Your task to perform on an android device: open the mobile data screen to see how much data has been used Image 0: 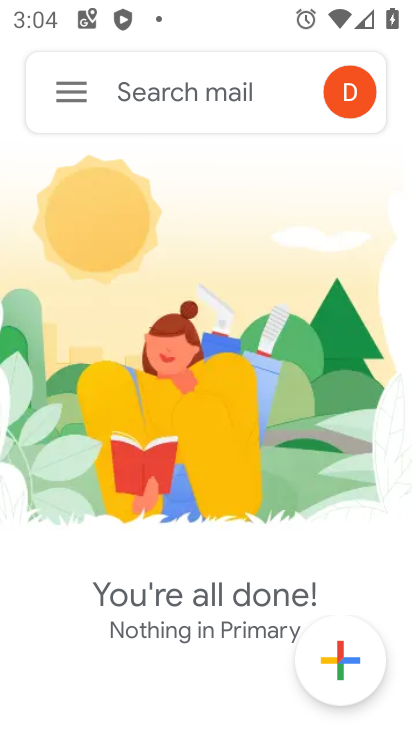
Step 0: press home button
Your task to perform on an android device: open the mobile data screen to see how much data has been used Image 1: 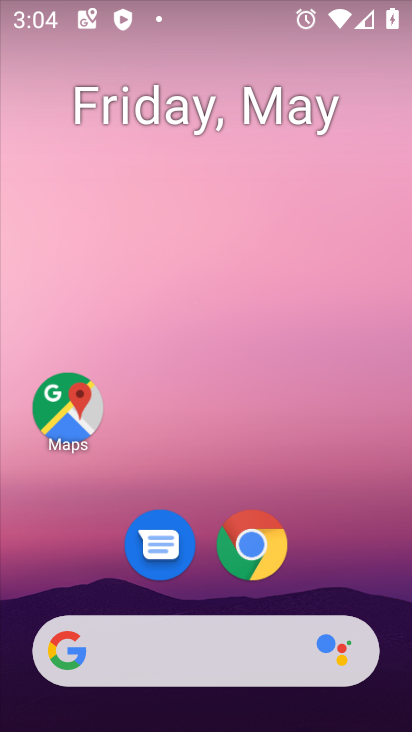
Step 1: drag from (345, 559) to (311, 124)
Your task to perform on an android device: open the mobile data screen to see how much data has been used Image 2: 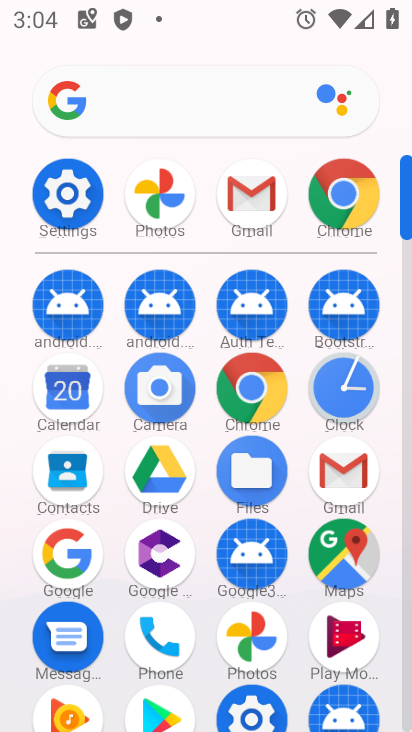
Step 2: click (69, 215)
Your task to perform on an android device: open the mobile data screen to see how much data has been used Image 3: 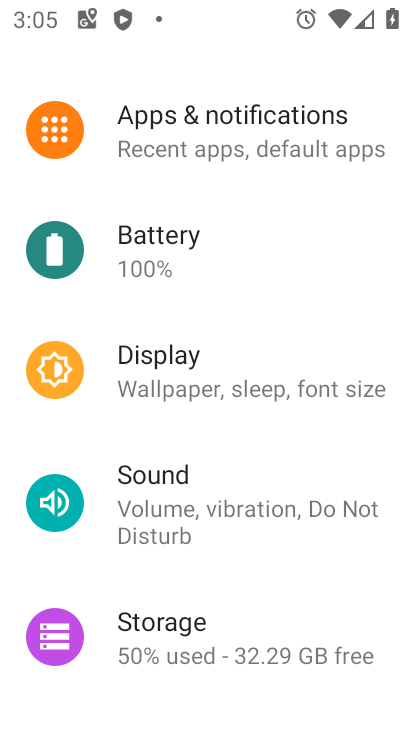
Step 3: drag from (296, 242) to (298, 623)
Your task to perform on an android device: open the mobile data screen to see how much data has been used Image 4: 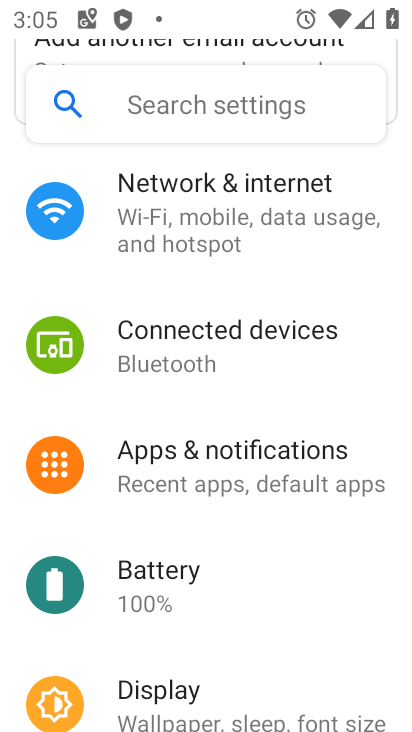
Step 4: drag from (312, 253) to (303, 463)
Your task to perform on an android device: open the mobile data screen to see how much data has been used Image 5: 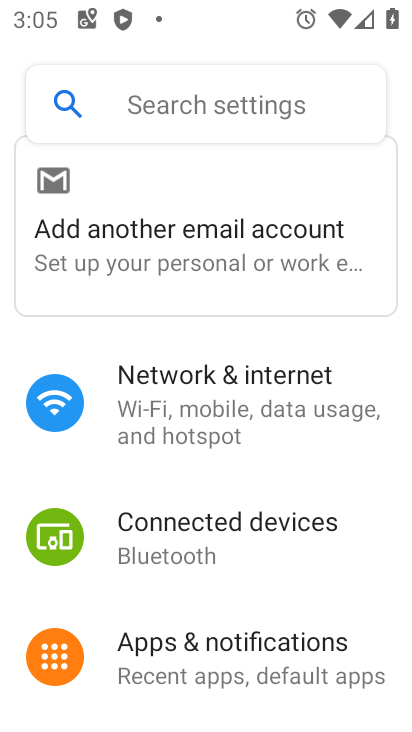
Step 5: click (275, 432)
Your task to perform on an android device: open the mobile data screen to see how much data has been used Image 6: 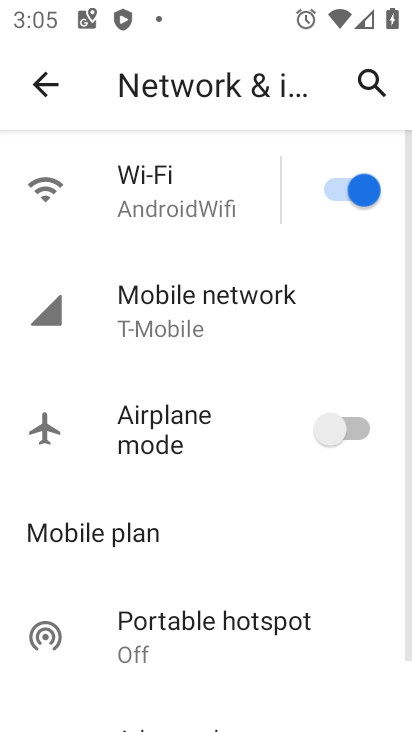
Step 6: click (196, 309)
Your task to perform on an android device: open the mobile data screen to see how much data has been used Image 7: 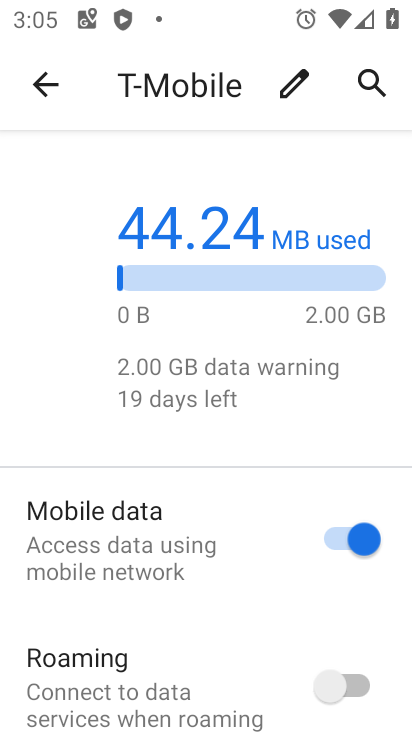
Step 7: drag from (241, 626) to (223, 244)
Your task to perform on an android device: open the mobile data screen to see how much data has been used Image 8: 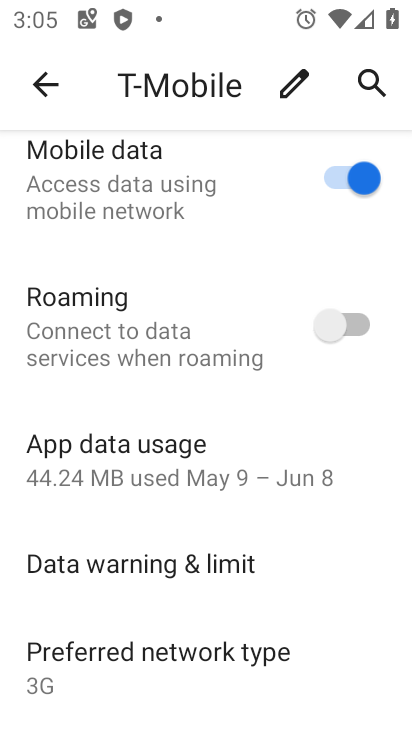
Step 8: click (194, 482)
Your task to perform on an android device: open the mobile data screen to see how much data has been used Image 9: 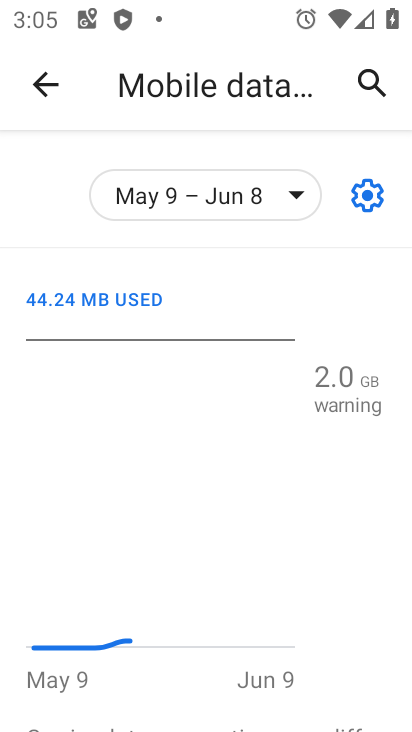
Step 9: task complete